Your task to perform on an android device: add a contact in the contacts app Image 0: 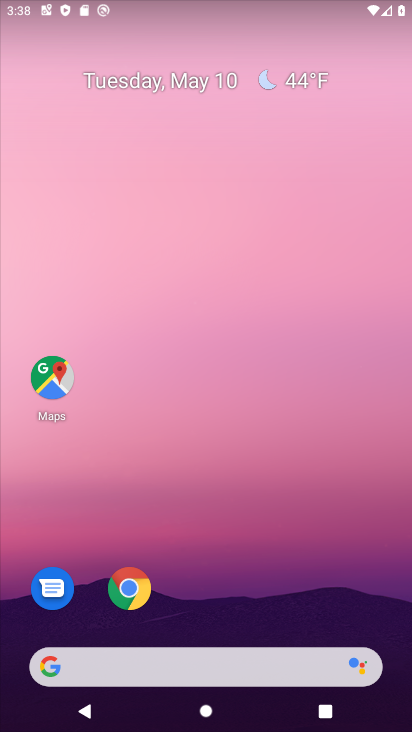
Step 0: drag from (223, 607) to (190, 161)
Your task to perform on an android device: add a contact in the contacts app Image 1: 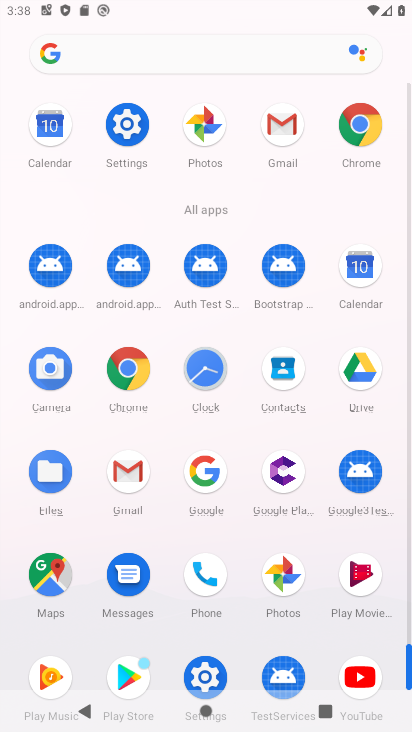
Step 1: click (283, 366)
Your task to perform on an android device: add a contact in the contacts app Image 2: 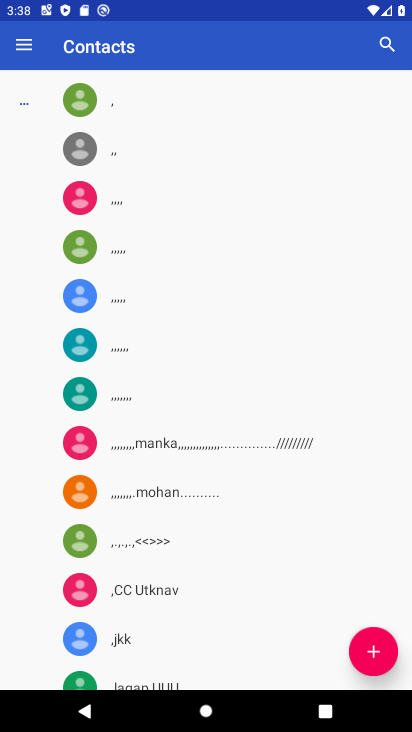
Step 2: click (365, 634)
Your task to perform on an android device: add a contact in the contacts app Image 3: 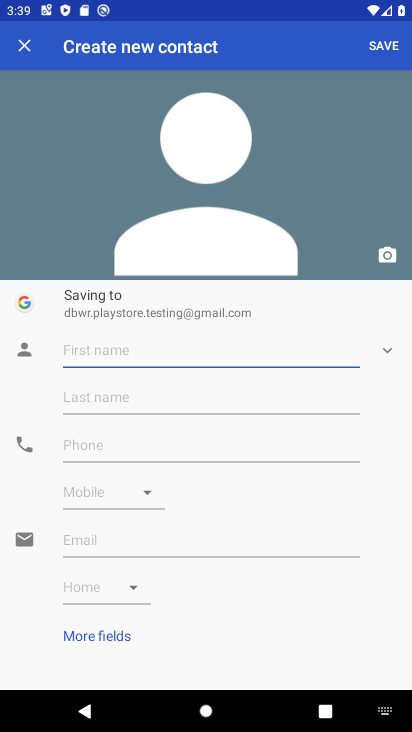
Step 3: type "fegevg"
Your task to perform on an android device: add a contact in the contacts app Image 4: 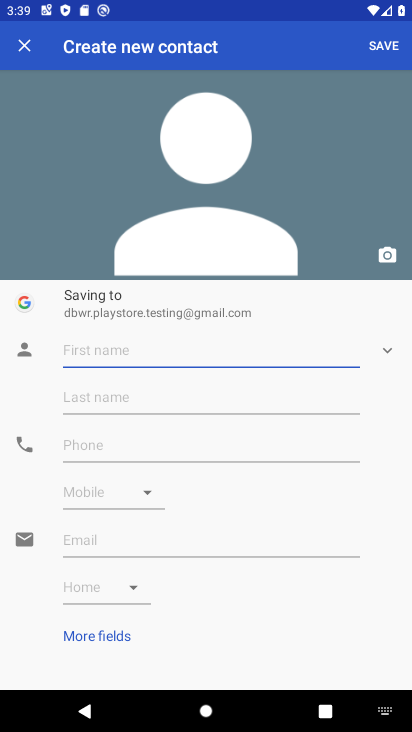
Step 4: click (94, 444)
Your task to perform on an android device: add a contact in the contacts app Image 5: 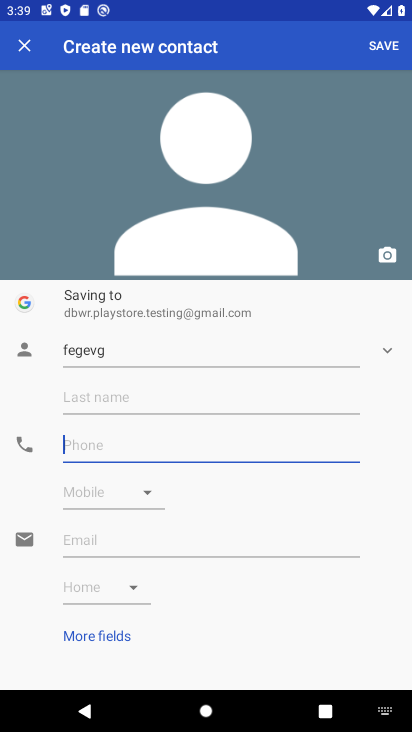
Step 5: type "445544656565"
Your task to perform on an android device: add a contact in the contacts app Image 6: 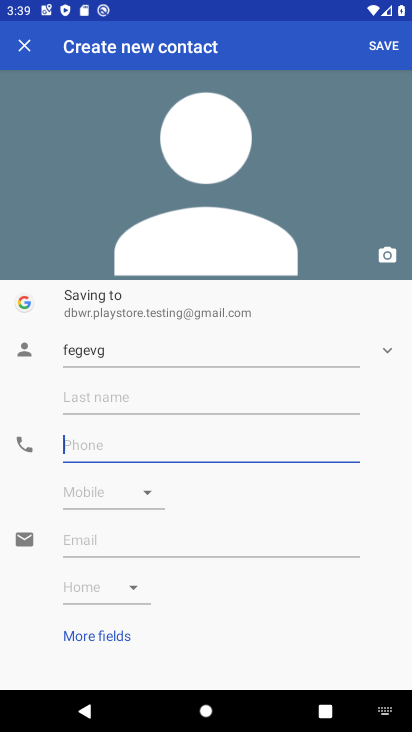
Step 6: click (380, 42)
Your task to perform on an android device: add a contact in the contacts app Image 7: 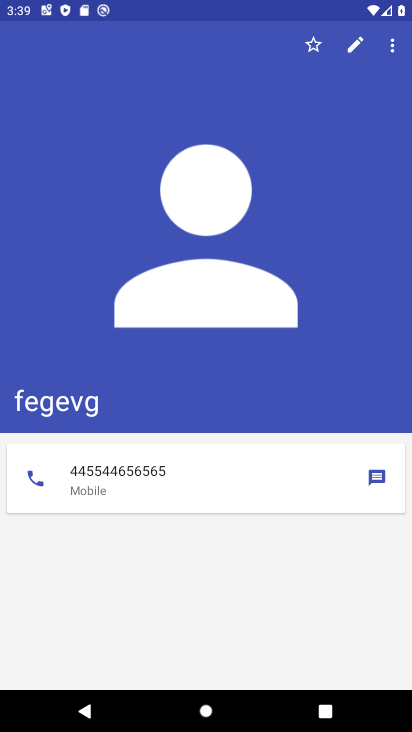
Step 7: task complete